Your task to perform on an android device: Go to battery settings Image 0: 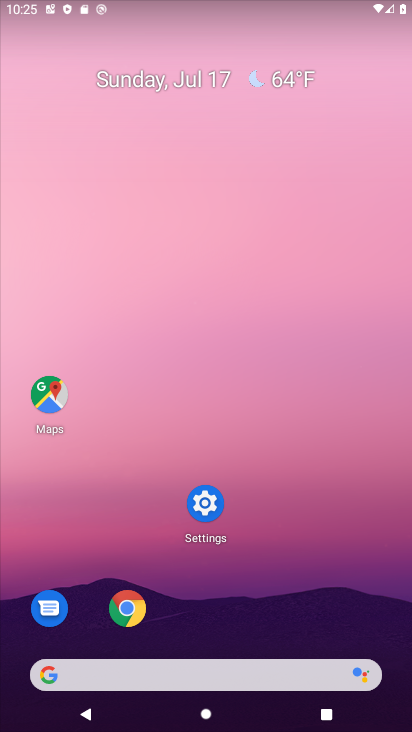
Step 0: click (211, 498)
Your task to perform on an android device: Go to battery settings Image 1: 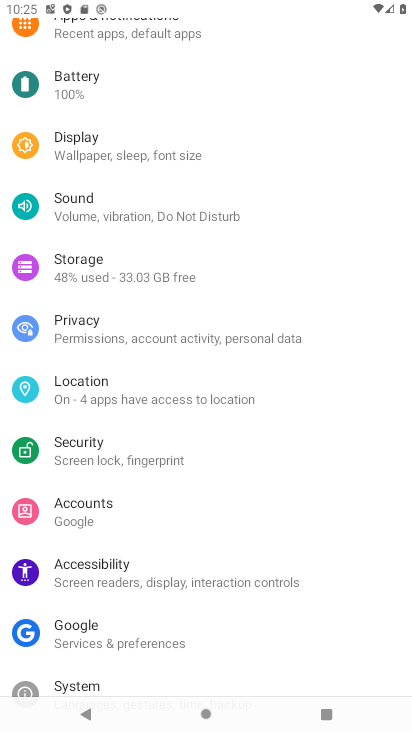
Step 1: click (88, 80)
Your task to perform on an android device: Go to battery settings Image 2: 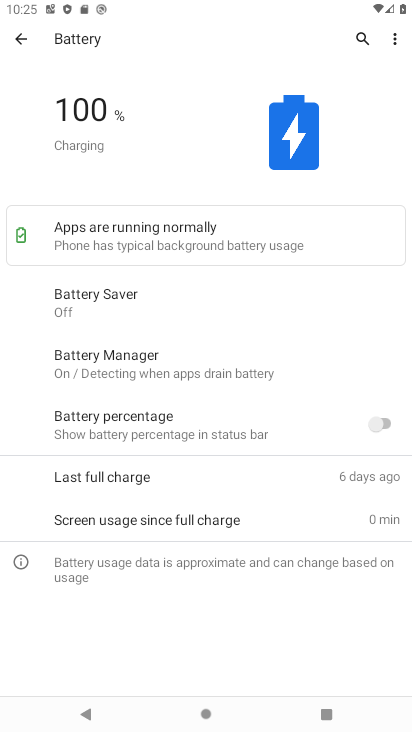
Step 2: task complete